Your task to perform on an android device: What's on the menu at Burger King? Image 0: 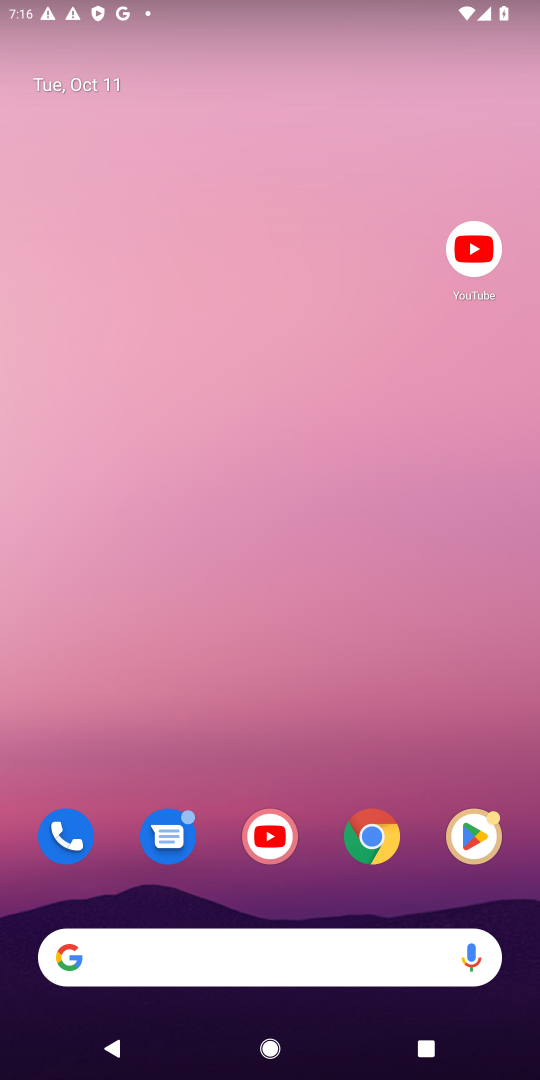
Step 0: click (377, 841)
Your task to perform on an android device: What's on the menu at Burger King? Image 1: 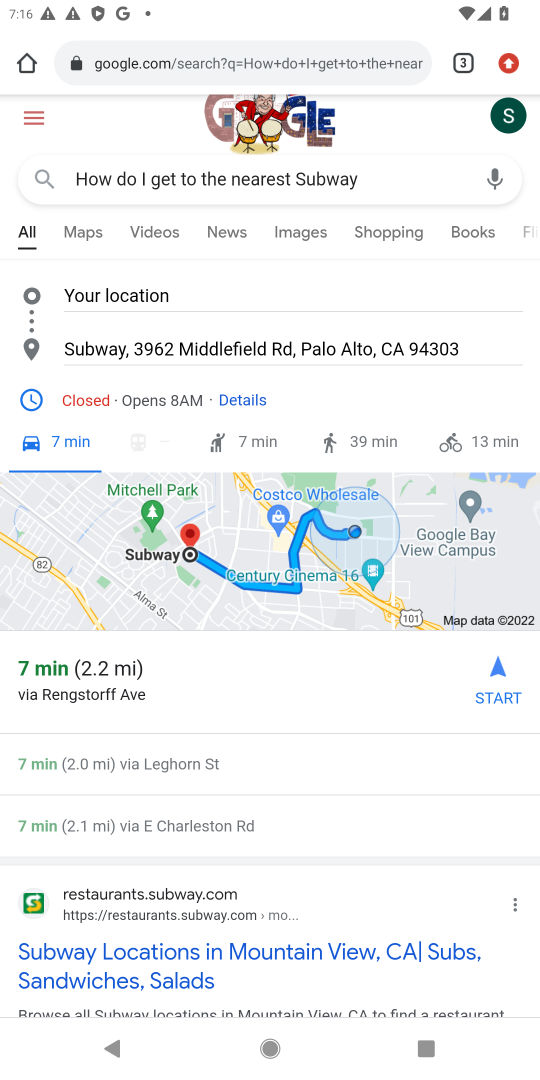
Step 1: click (279, 61)
Your task to perform on an android device: What's on the menu at Burger King? Image 2: 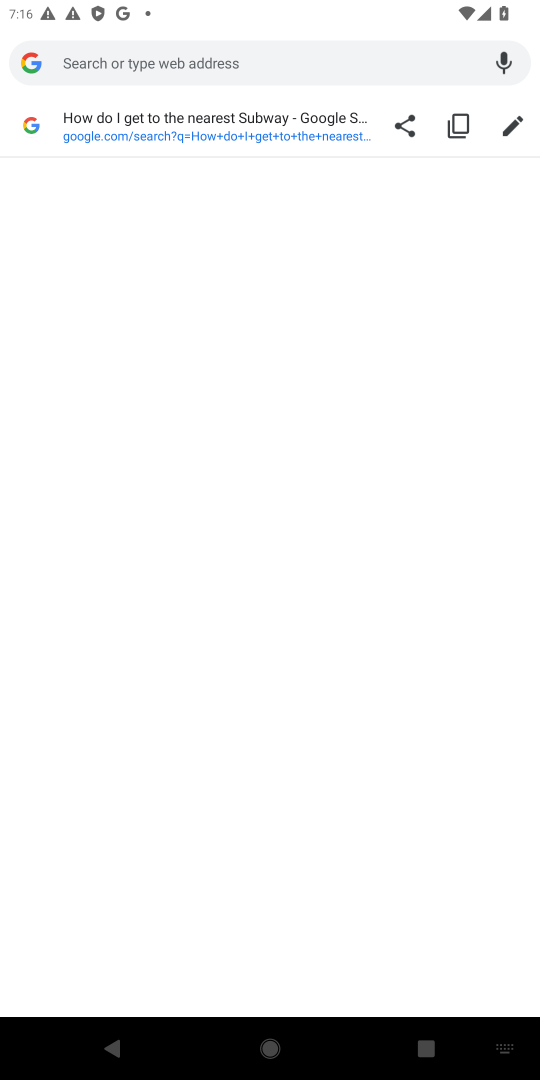
Step 2: type " menu at Burger King"
Your task to perform on an android device: What's on the menu at Burger King? Image 3: 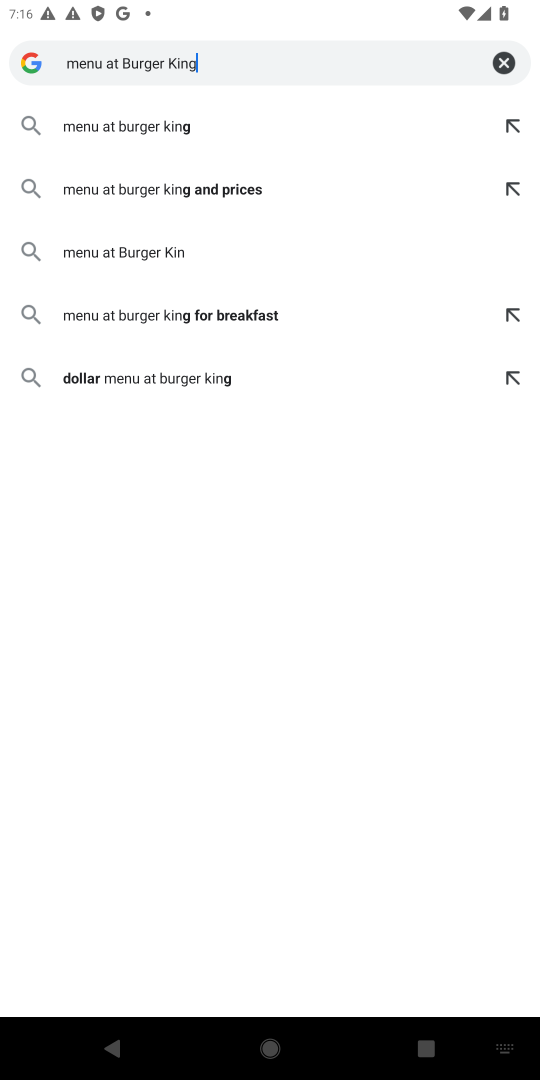
Step 3: press enter
Your task to perform on an android device: What's on the menu at Burger King? Image 4: 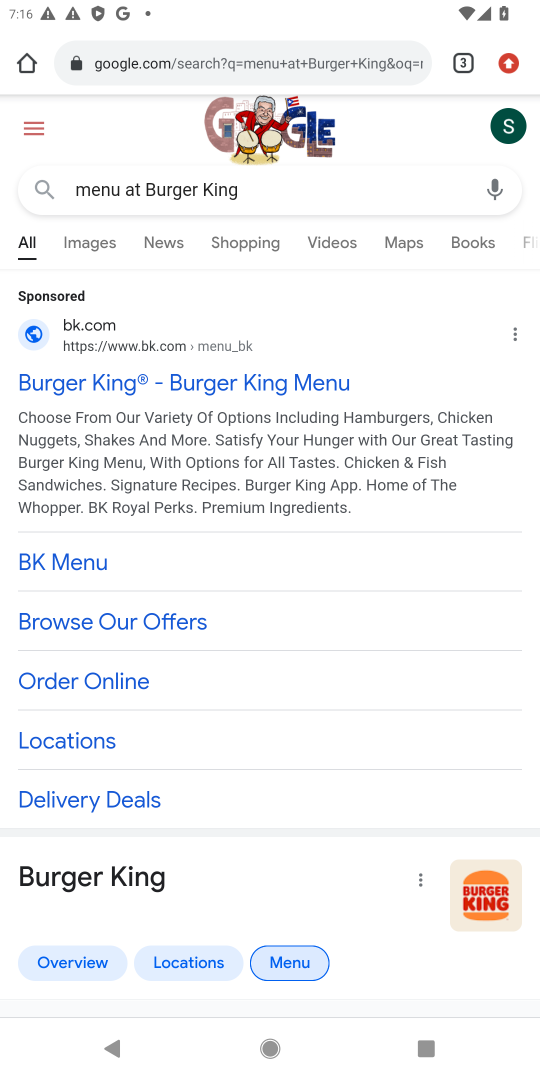
Step 4: drag from (271, 710) to (495, 83)
Your task to perform on an android device: What's on the menu at Burger King? Image 5: 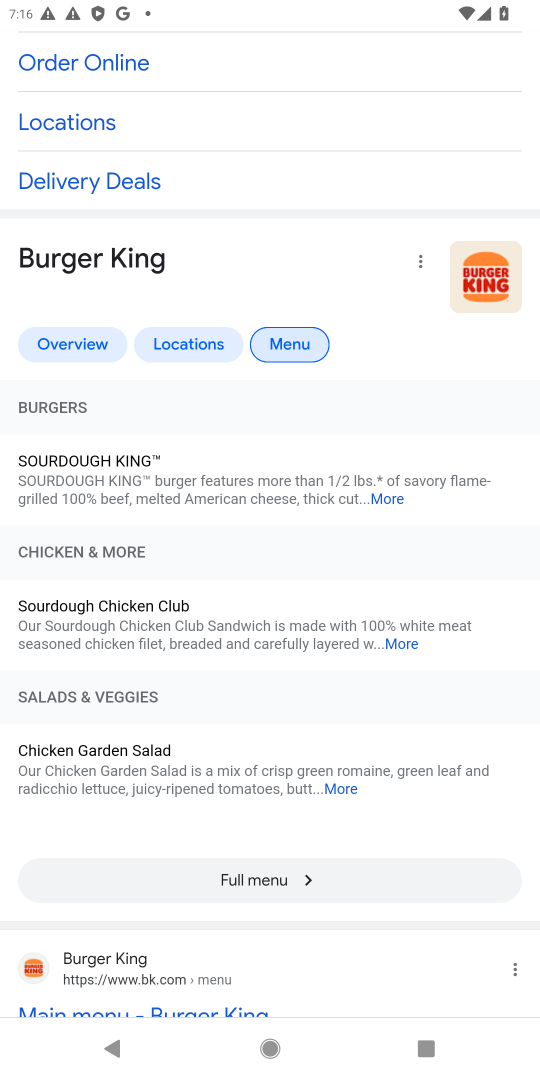
Step 5: drag from (303, 641) to (411, 386)
Your task to perform on an android device: What's on the menu at Burger King? Image 6: 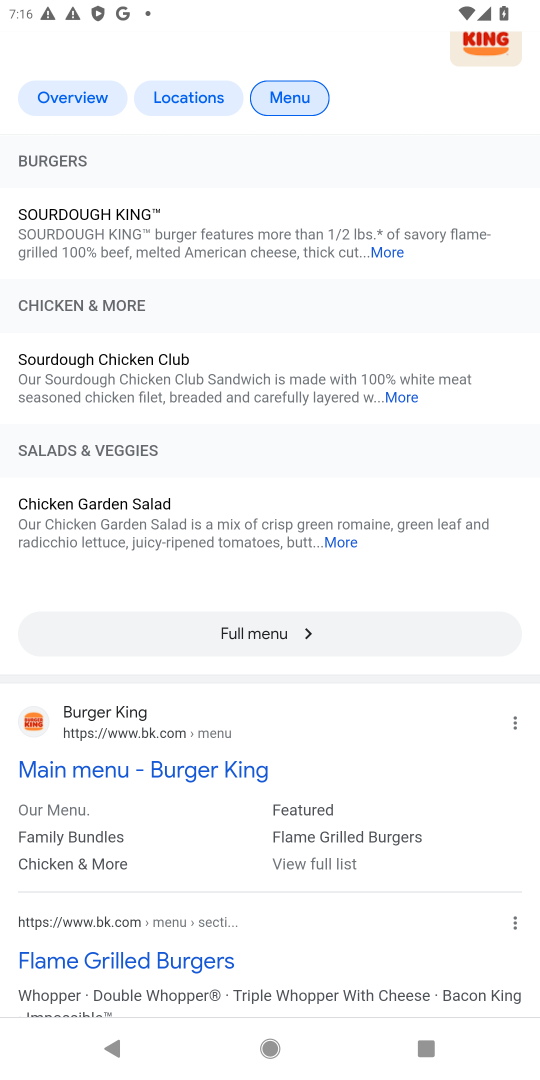
Step 6: click (150, 764)
Your task to perform on an android device: What's on the menu at Burger King? Image 7: 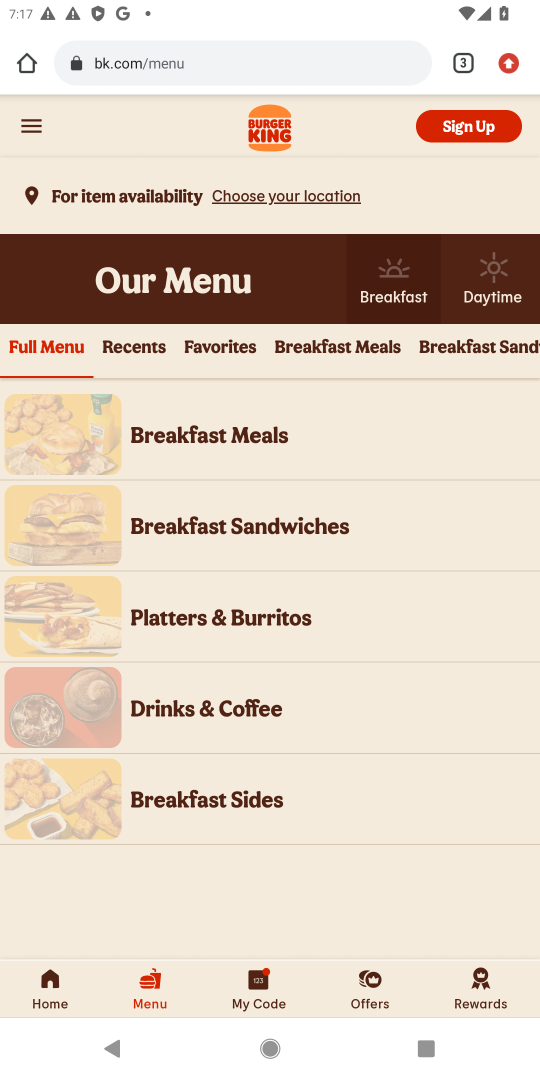
Step 7: task complete